Your task to perform on an android device: install app "File Manager" Image 0: 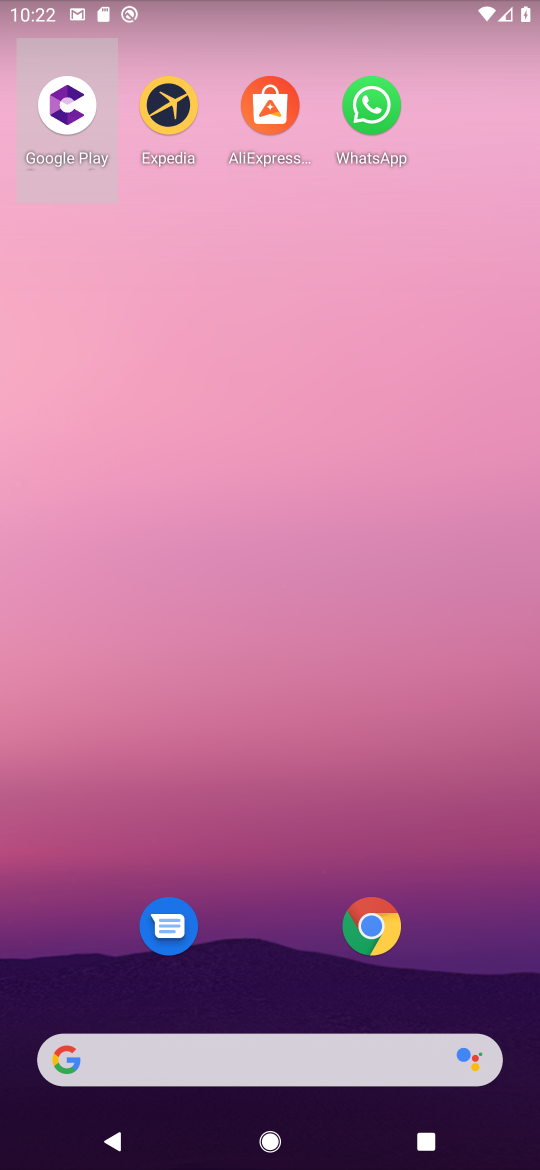
Step 0: drag from (204, 916) to (190, 52)
Your task to perform on an android device: install app "File Manager" Image 1: 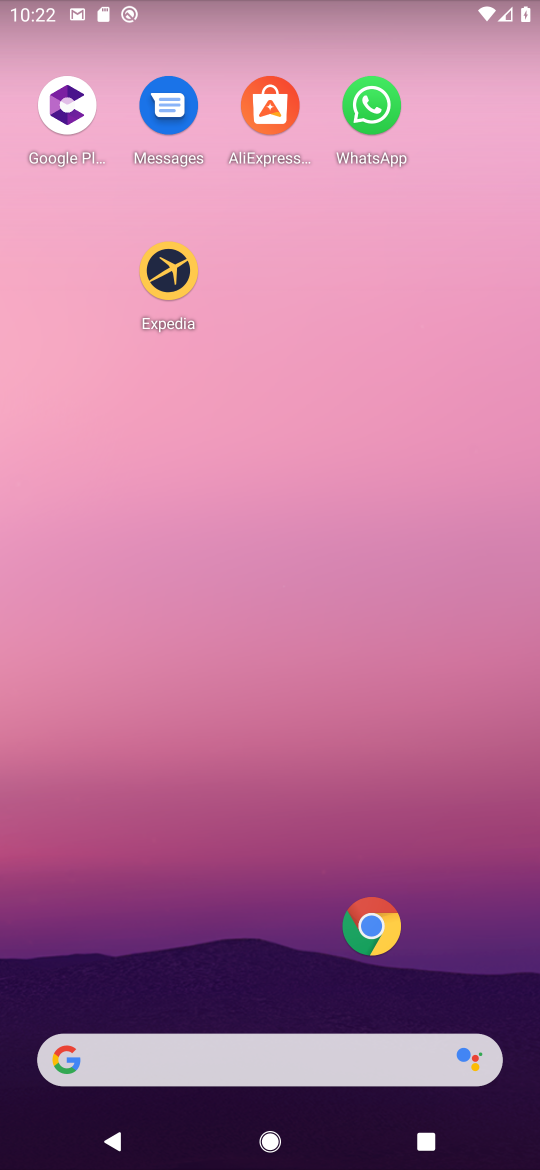
Step 1: drag from (214, 958) to (455, 703)
Your task to perform on an android device: install app "File Manager" Image 2: 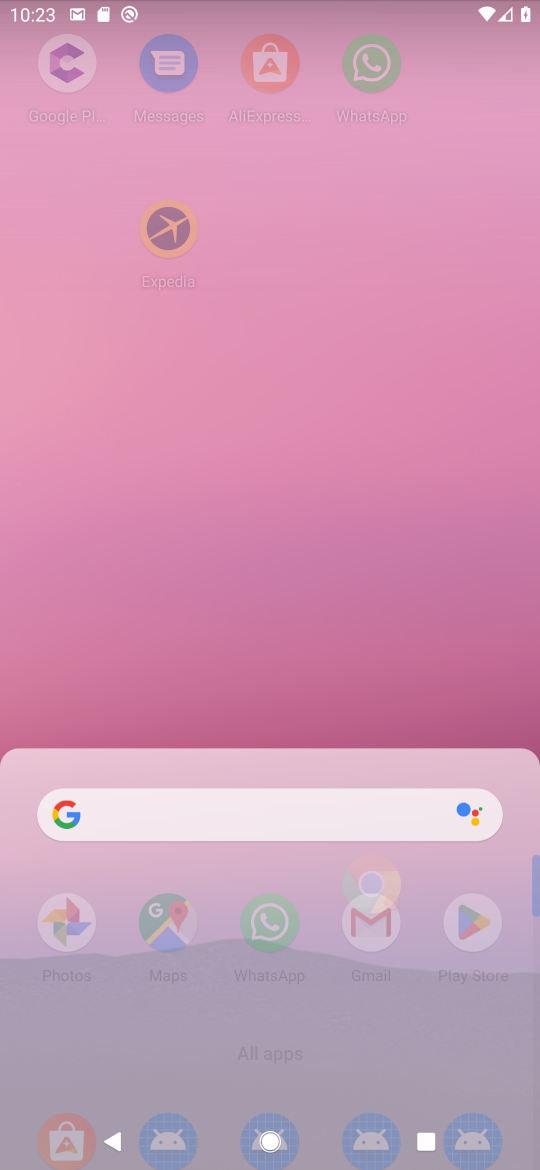
Step 2: click (471, 291)
Your task to perform on an android device: install app "File Manager" Image 3: 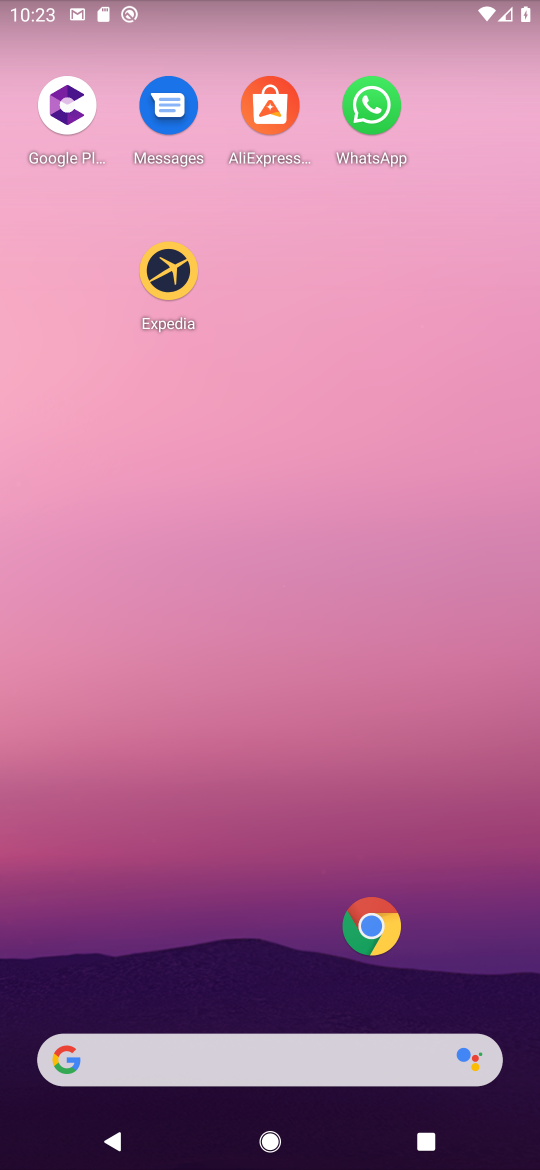
Step 3: click (308, 283)
Your task to perform on an android device: install app "File Manager" Image 4: 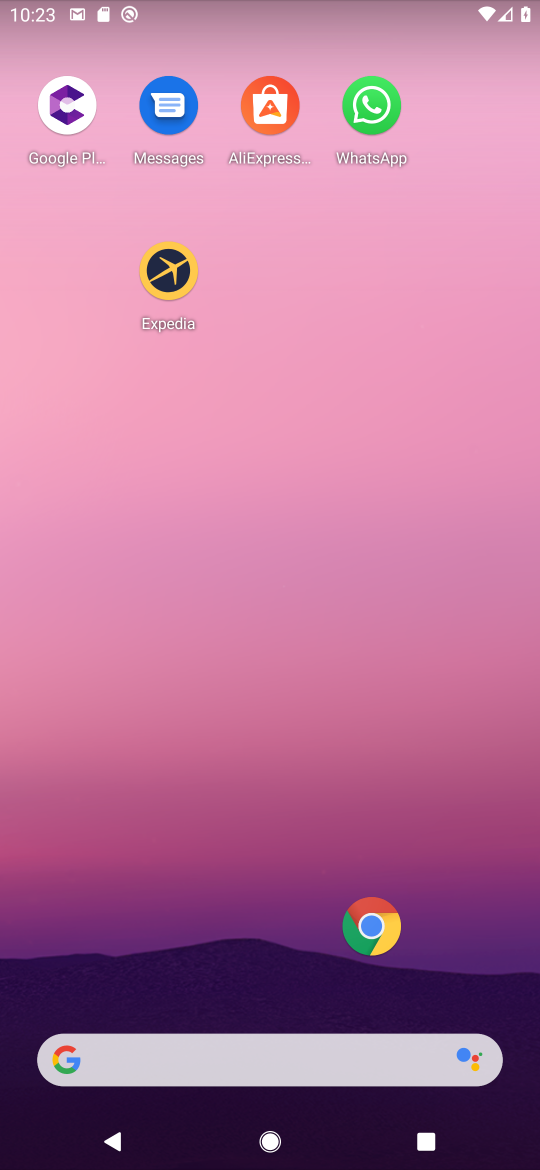
Step 4: drag from (162, 224) to (184, 6)
Your task to perform on an android device: install app "File Manager" Image 5: 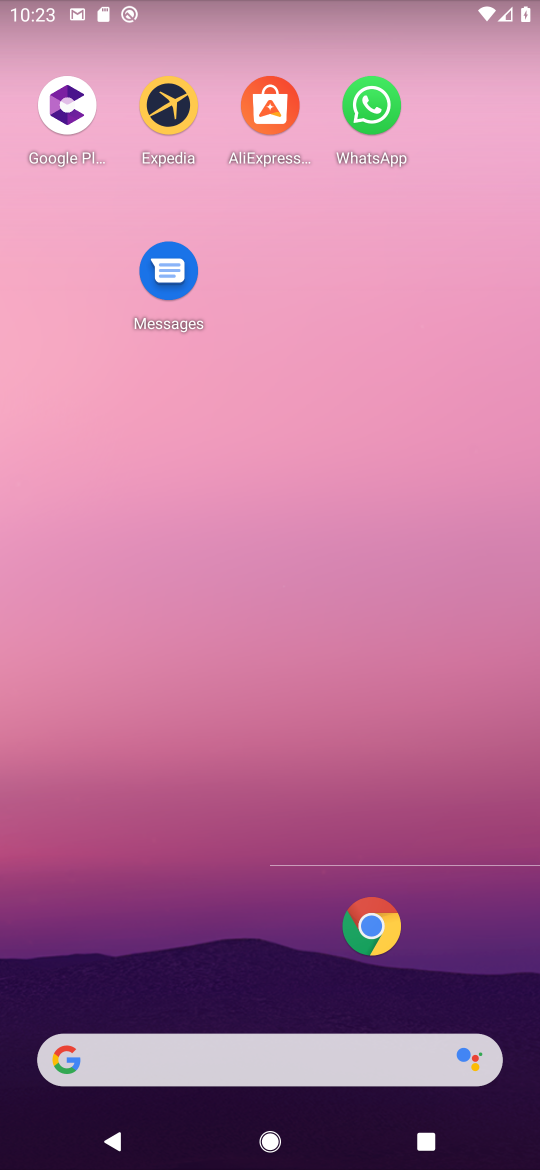
Step 5: drag from (181, 962) to (104, 24)
Your task to perform on an android device: install app "File Manager" Image 6: 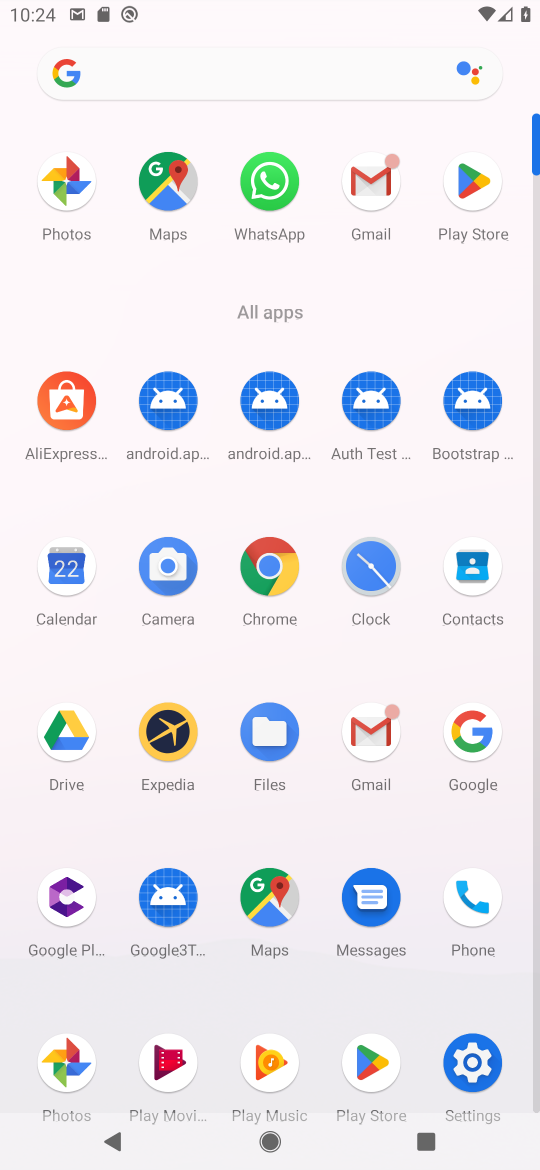
Step 6: click (457, 165)
Your task to perform on an android device: install app "File Manager" Image 7: 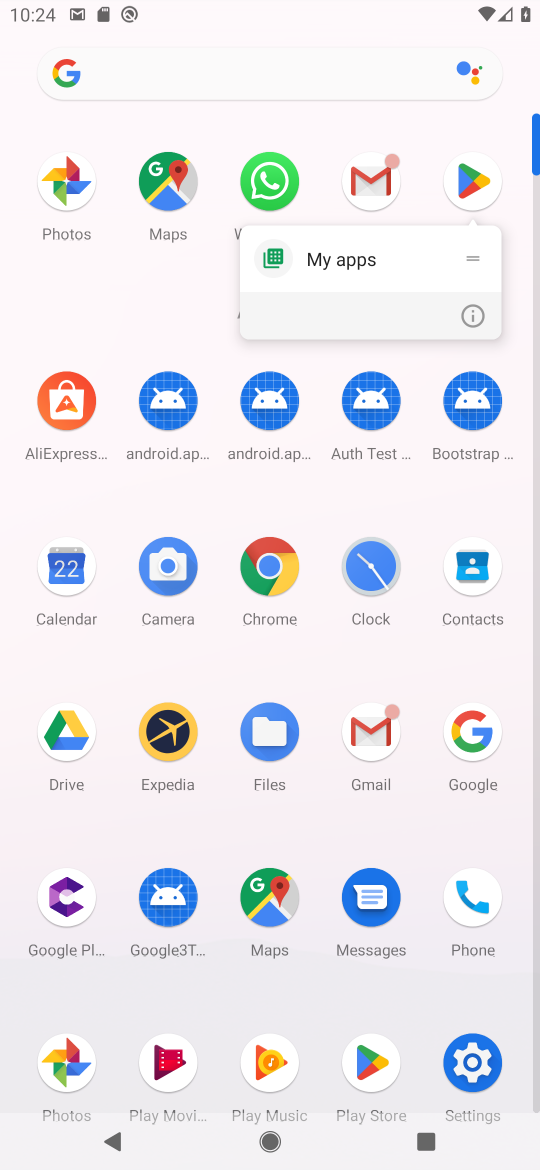
Step 7: click (466, 172)
Your task to perform on an android device: install app "File Manager" Image 8: 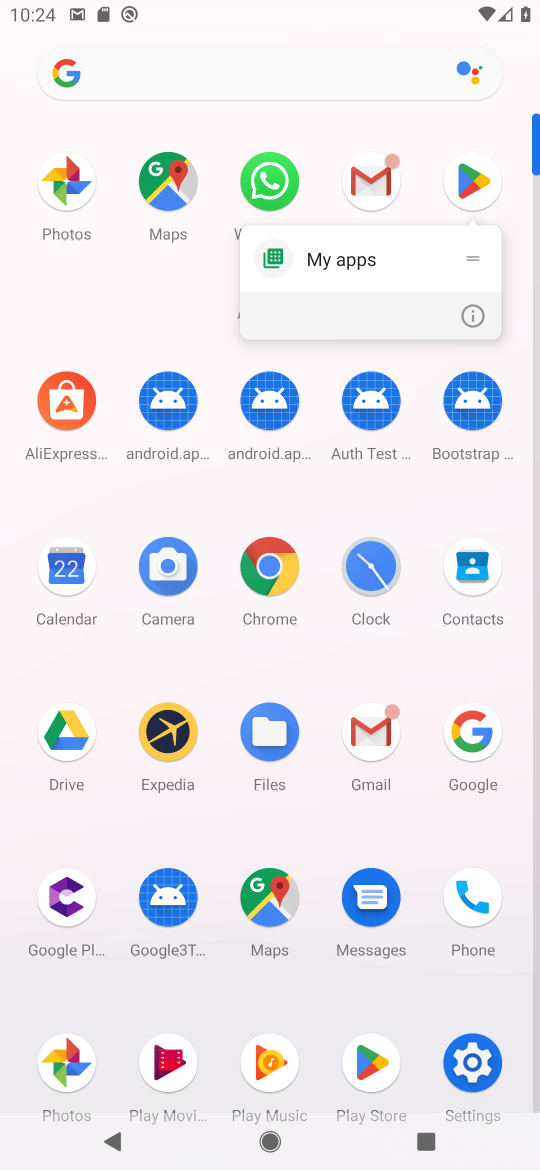
Step 8: click (476, 180)
Your task to perform on an android device: install app "File Manager" Image 9: 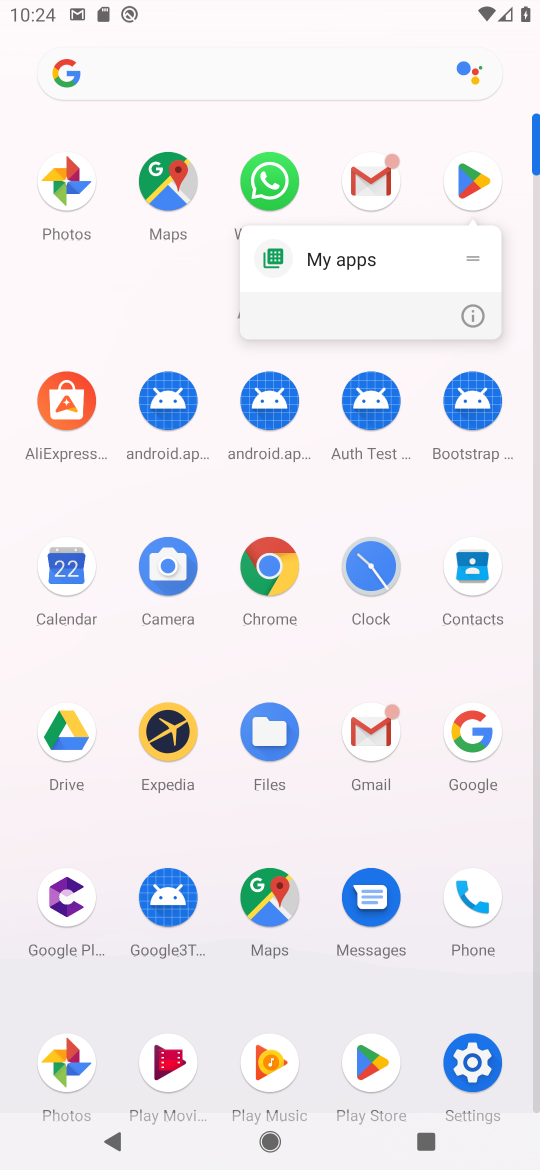
Step 9: click (471, 182)
Your task to perform on an android device: install app "File Manager" Image 10: 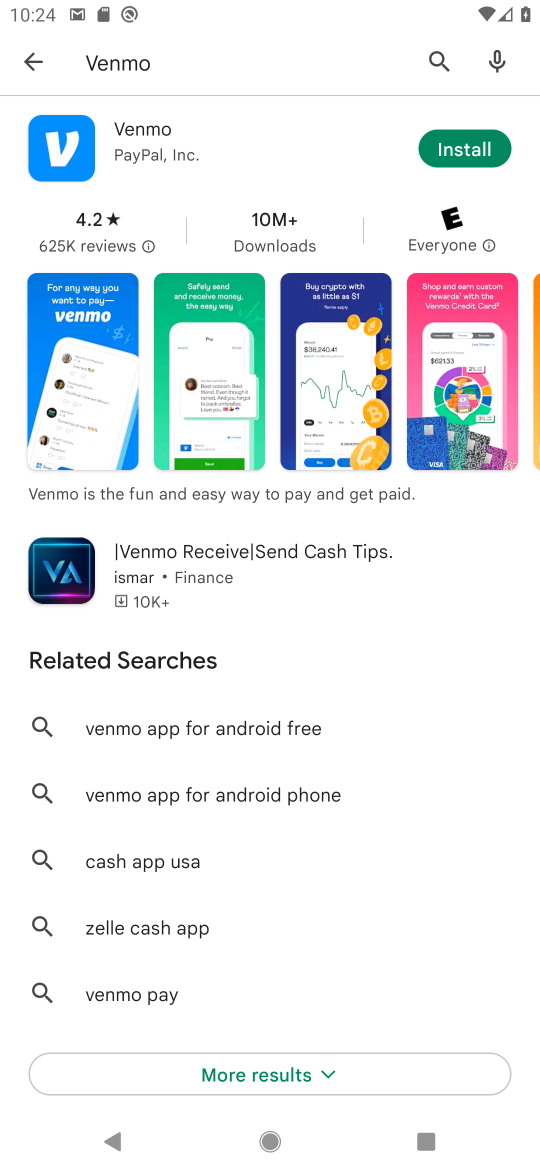
Step 10: press back button
Your task to perform on an android device: install app "File Manager" Image 11: 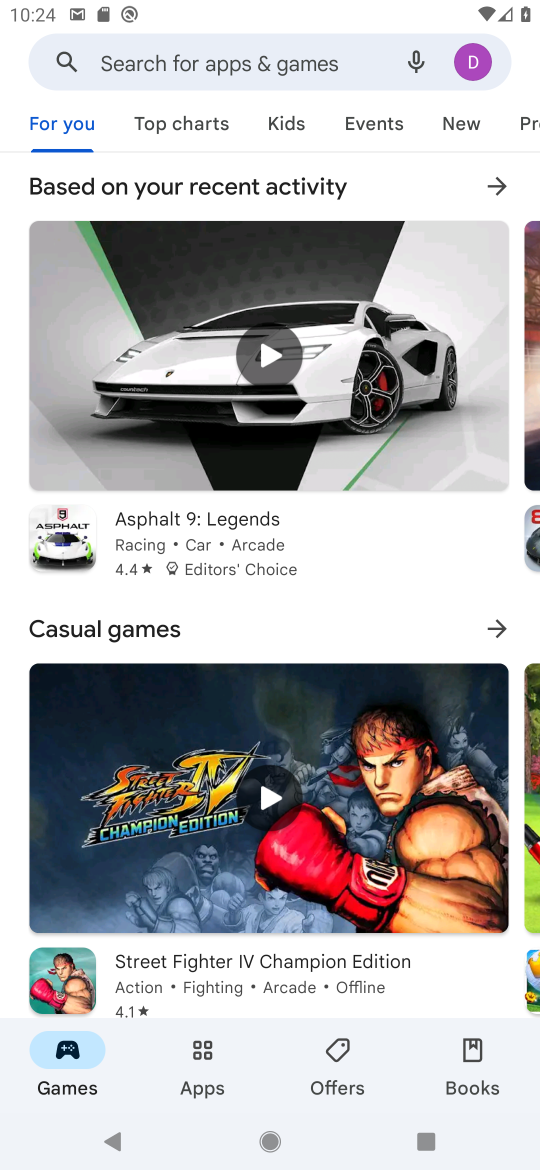
Step 11: click (171, 76)
Your task to perform on an android device: install app "File Manager" Image 12: 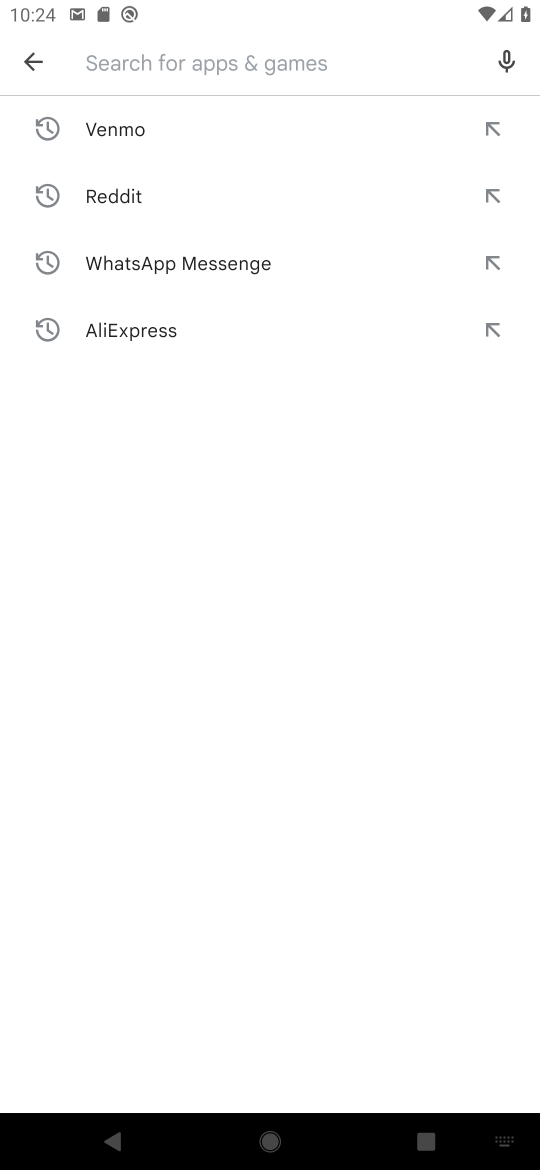
Step 12: type "File Manager"
Your task to perform on an android device: install app "File Manager" Image 13: 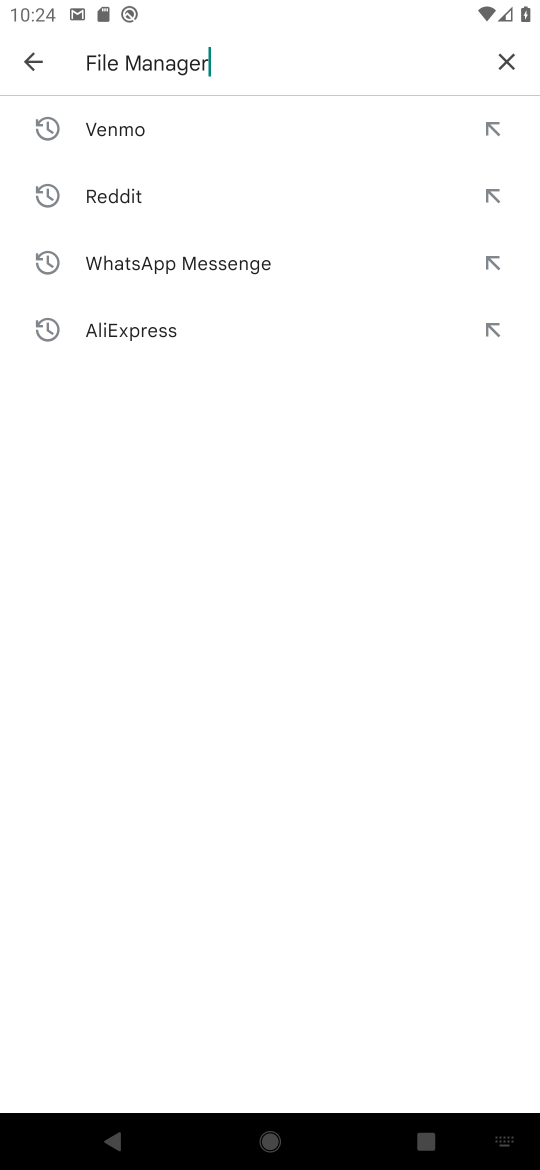
Step 13: press enter
Your task to perform on an android device: install app "File Manager" Image 14: 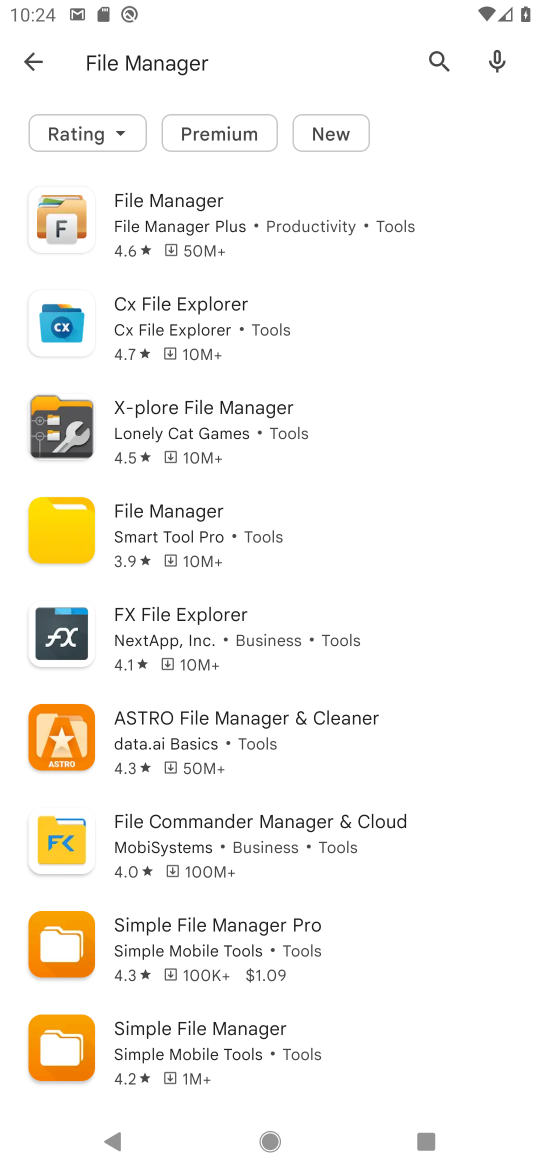
Step 14: click (200, 239)
Your task to perform on an android device: install app "File Manager" Image 15: 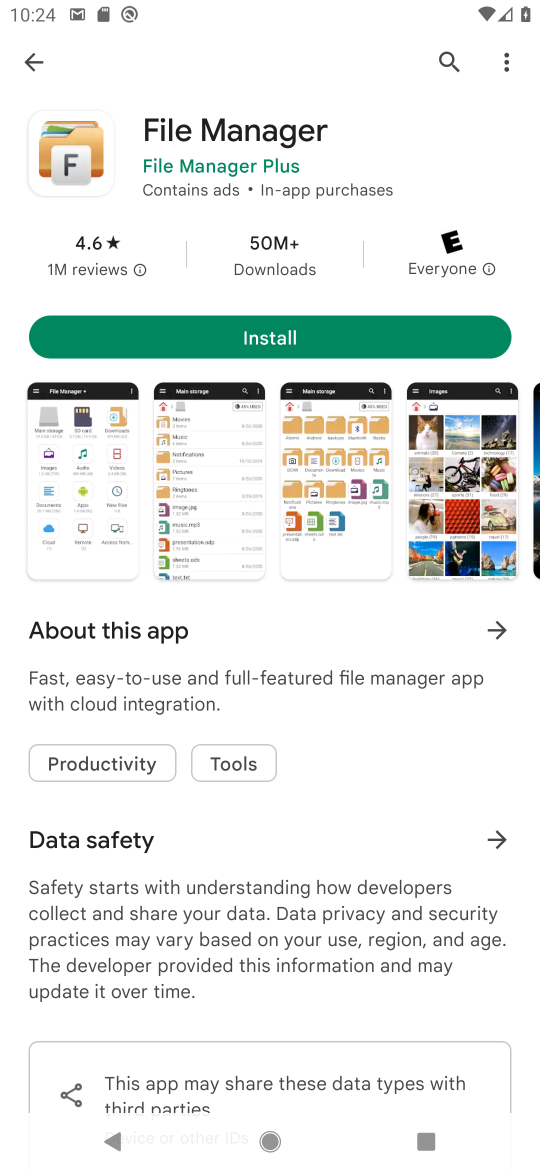
Step 15: click (276, 356)
Your task to perform on an android device: install app "File Manager" Image 16: 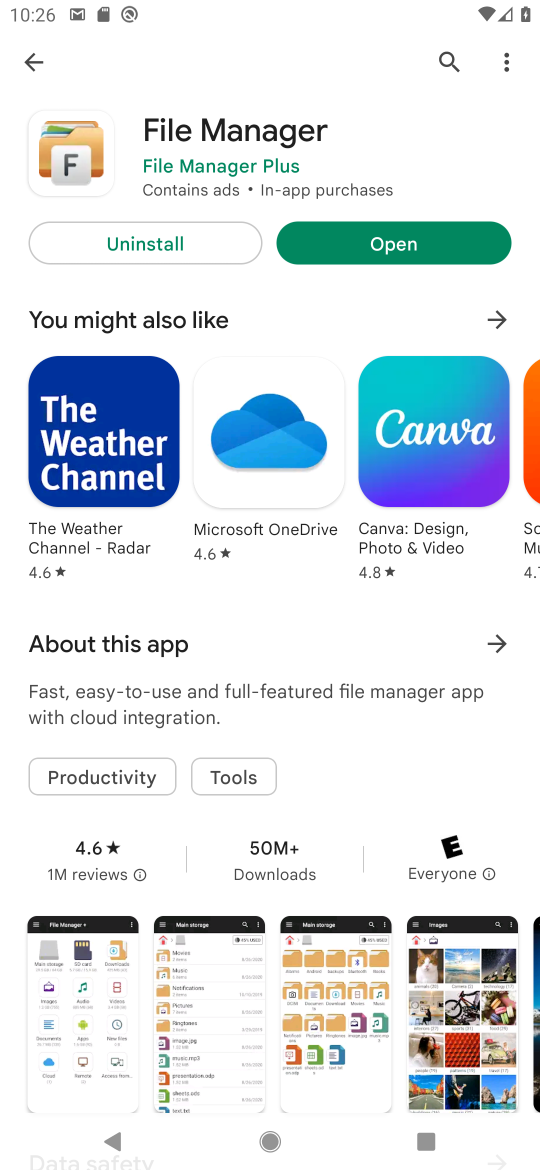
Step 16: task complete